Your task to perform on an android device: open wifi settings Image 0: 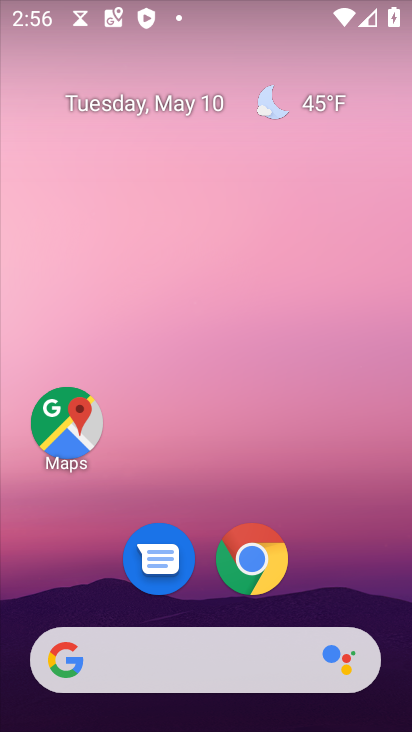
Step 0: drag from (370, 608) to (117, 73)
Your task to perform on an android device: open wifi settings Image 1: 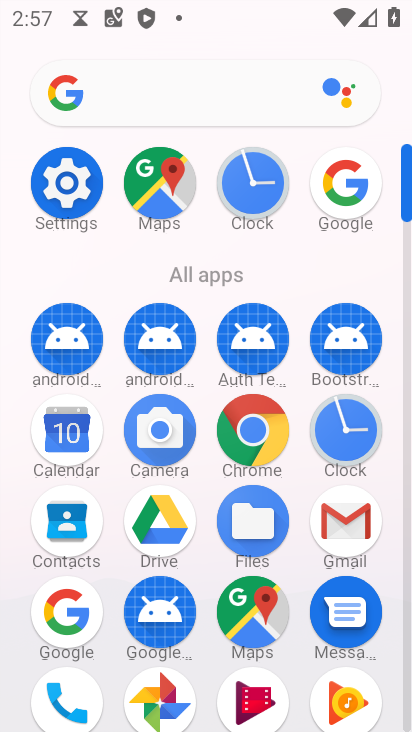
Step 1: click (73, 193)
Your task to perform on an android device: open wifi settings Image 2: 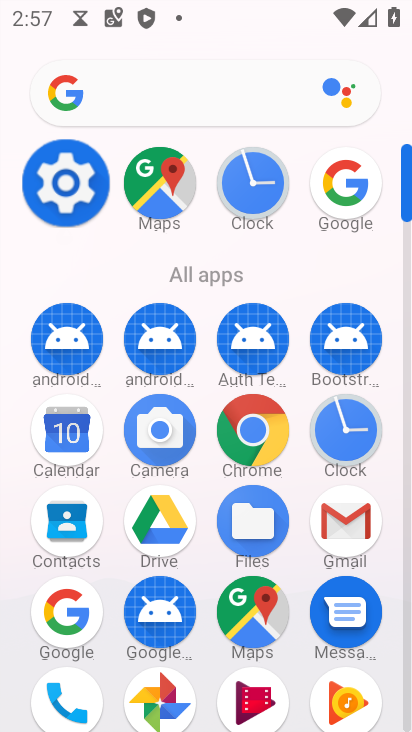
Step 2: click (53, 191)
Your task to perform on an android device: open wifi settings Image 3: 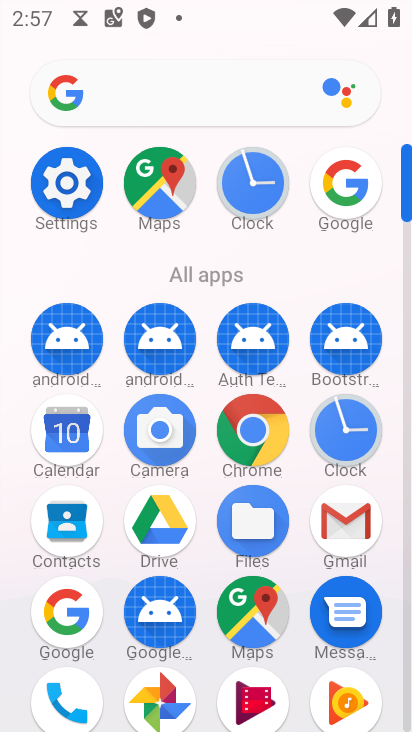
Step 3: click (63, 185)
Your task to perform on an android device: open wifi settings Image 4: 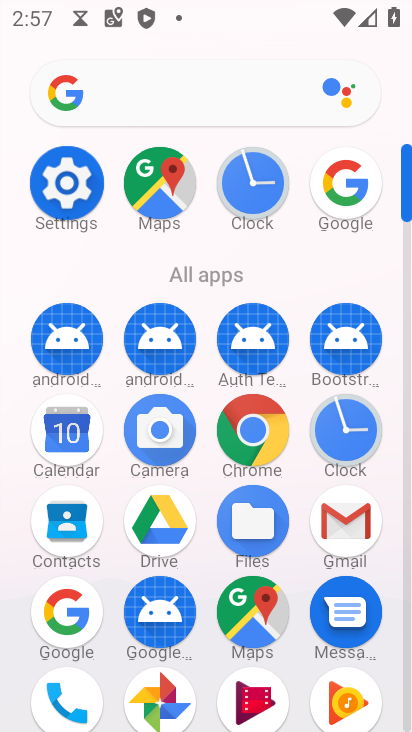
Step 4: click (63, 185)
Your task to perform on an android device: open wifi settings Image 5: 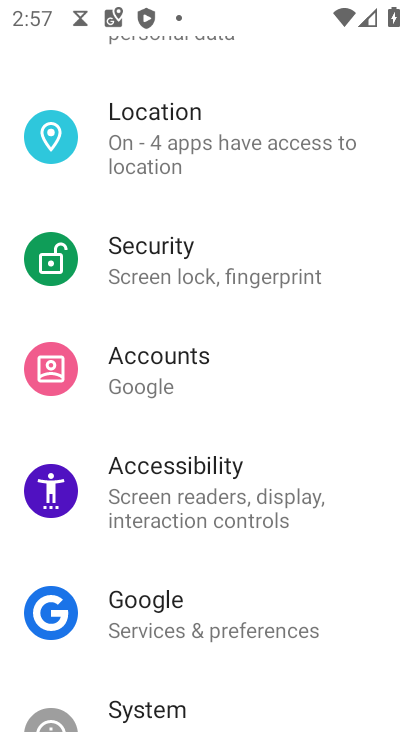
Step 5: click (53, 191)
Your task to perform on an android device: open wifi settings Image 6: 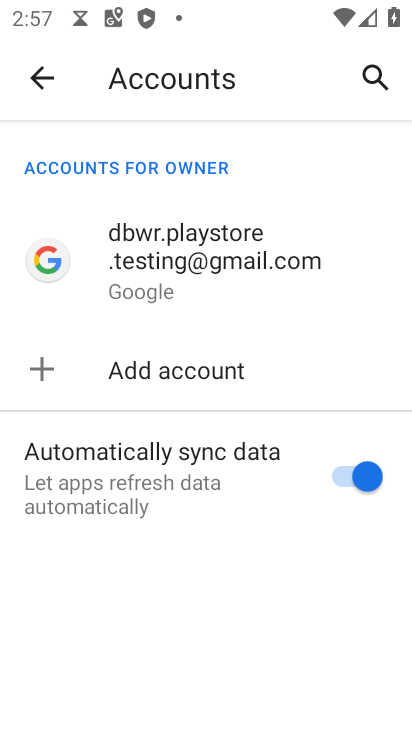
Step 6: click (37, 75)
Your task to perform on an android device: open wifi settings Image 7: 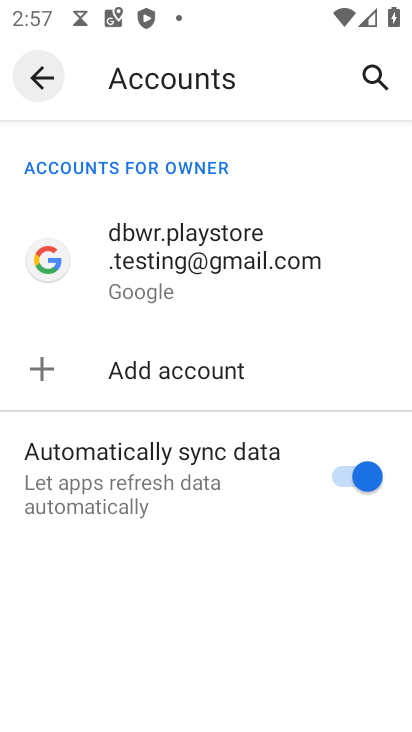
Step 7: click (37, 75)
Your task to perform on an android device: open wifi settings Image 8: 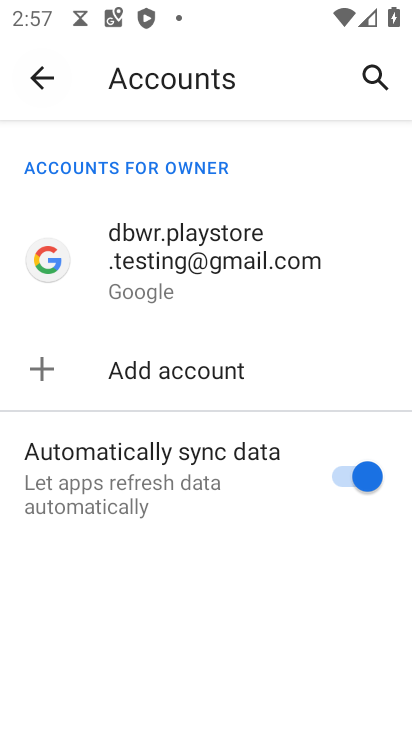
Step 8: click (37, 75)
Your task to perform on an android device: open wifi settings Image 9: 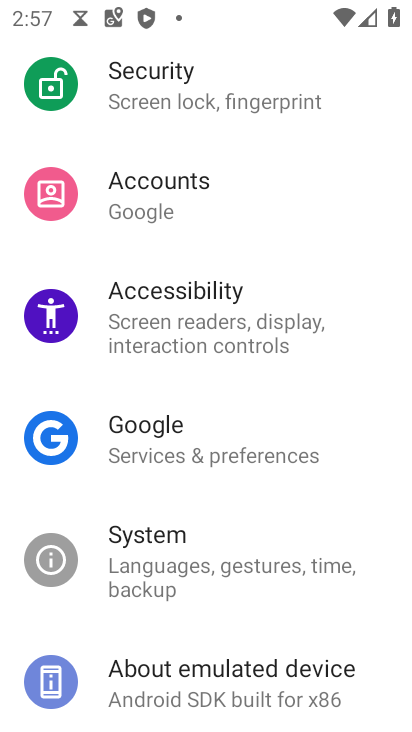
Step 9: click (37, 75)
Your task to perform on an android device: open wifi settings Image 10: 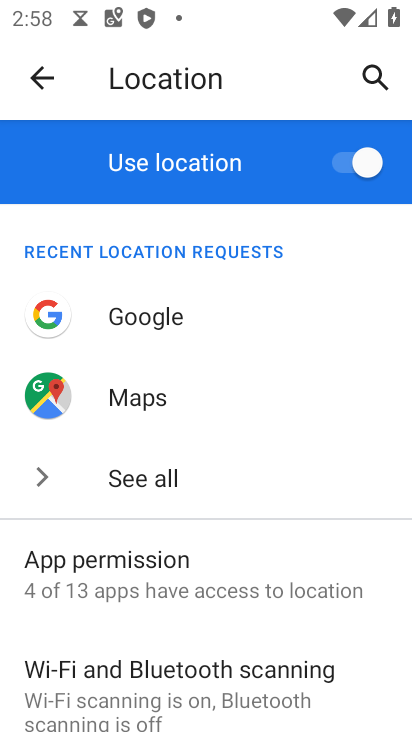
Step 10: click (37, 71)
Your task to perform on an android device: open wifi settings Image 11: 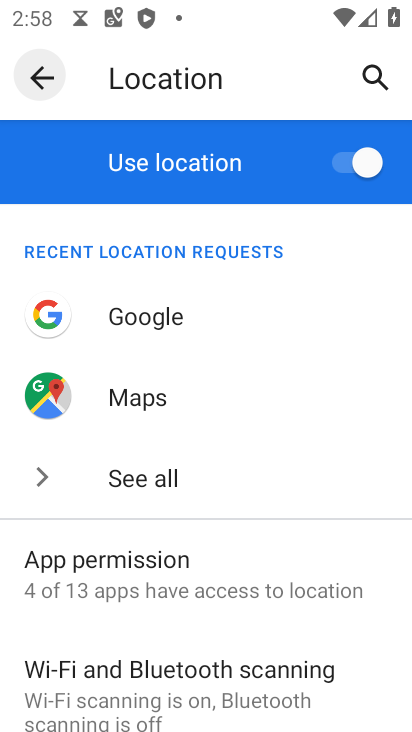
Step 11: click (37, 71)
Your task to perform on an android device: open wifi settings Image 12: 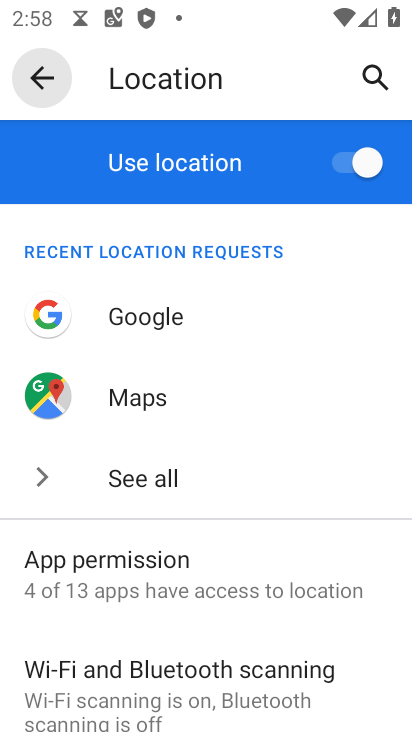
Step 12: click (37, 71)
Your task to perform on an android device: open wifi settings Image 13: 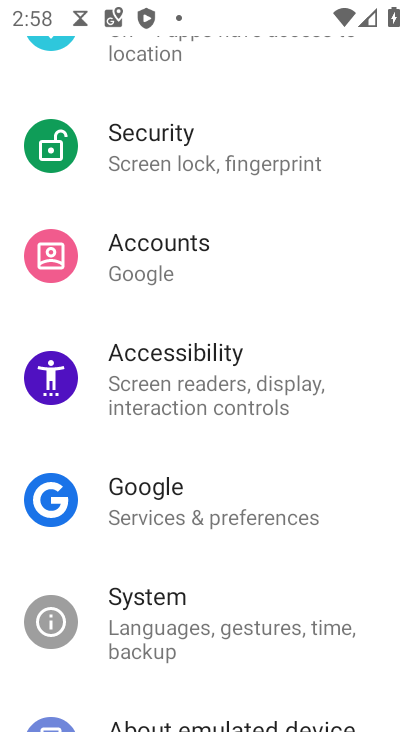
Step 13: click (39, 71)
Your task to perform on an android device: open wifi settings Image 14: 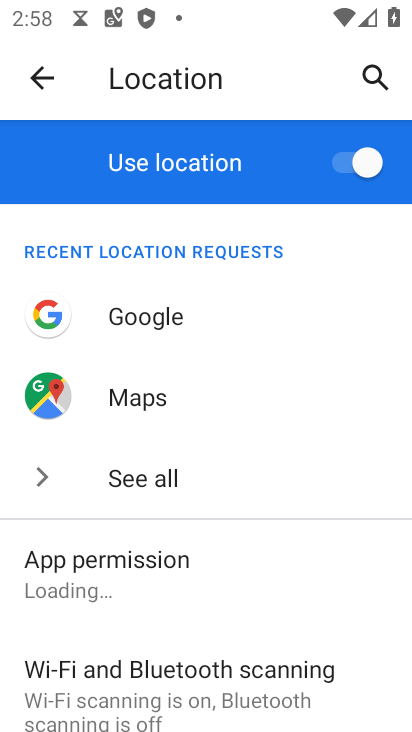
Step 14: click (42, 72)
Your task to perform on an android device: open wifi settings Image 15: 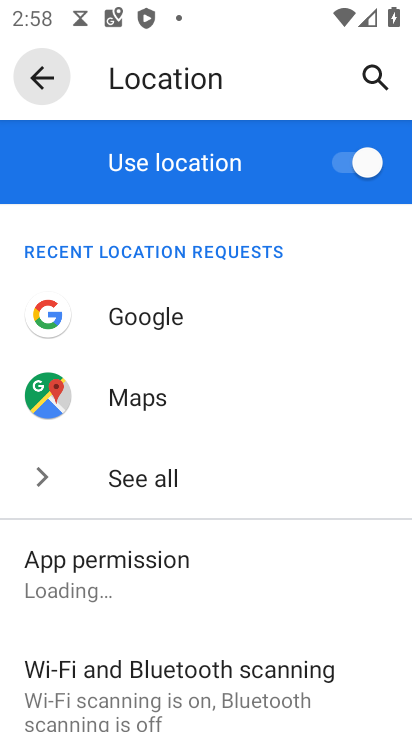
Step 15: click (41, 74)
Your task to perform on an android device: open wifi settings Image 16: 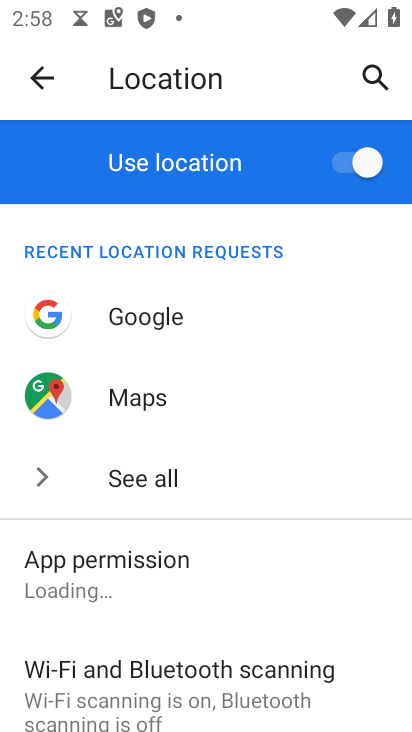
Step 16: click (41, 74)
Your task to perform on an android device: open wifi settings Image 17: 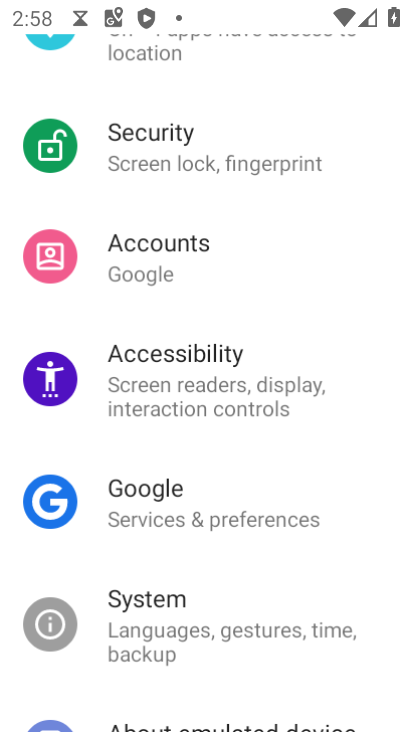
Step 17: click (42, 75)
Your task to perform on an android device: open wifi settings Image 18: 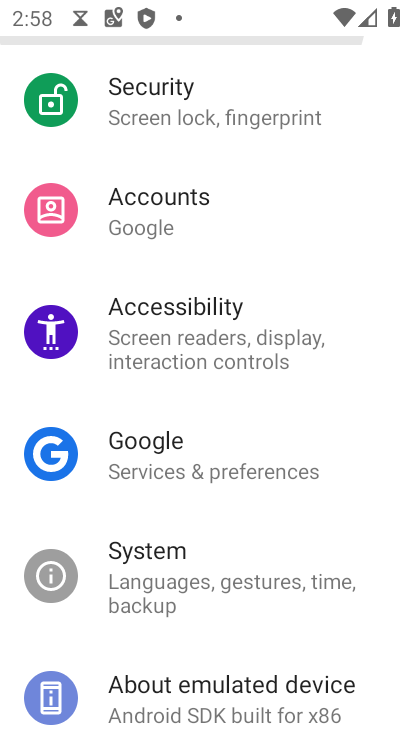
Step 18: click (43, 74)
Your task to perform on an android device: open wifi settings Image 19: 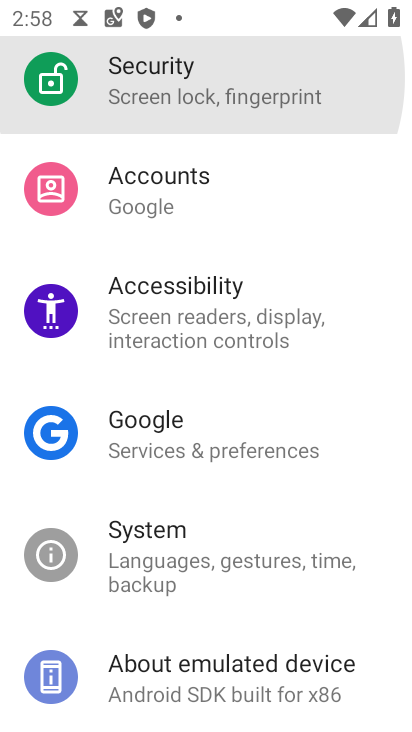
Step 19: click (44, 74)
Your task to perform on an android device: open wifi settings Image 20: 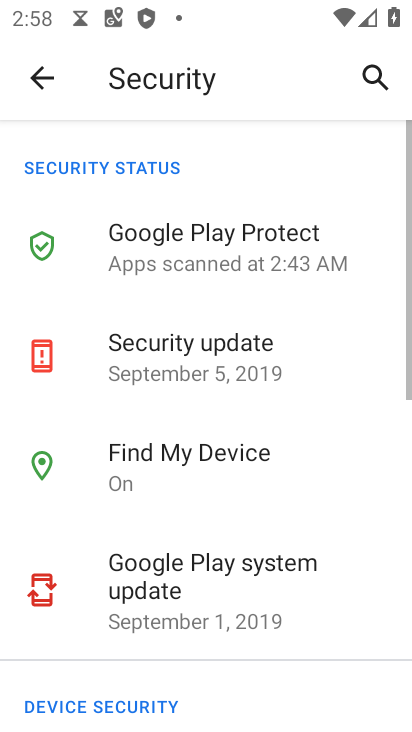
Step 20: click (43, 76)
Your task to perform on an android device: open wifi settings Image 21: 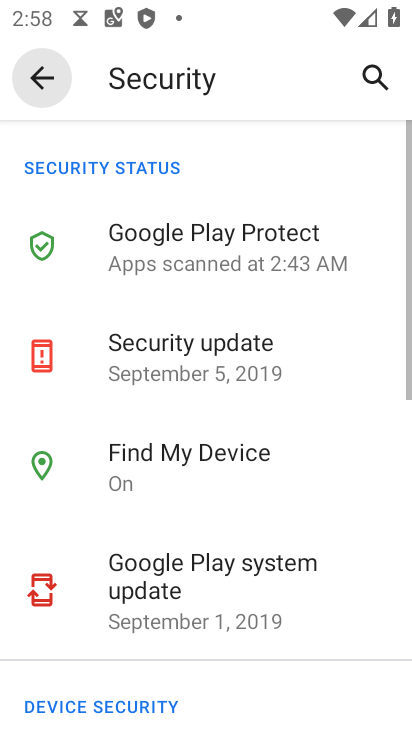
Step 21: click (39, 78)
Your task to perform on an android device: open wifi settings Image 22: 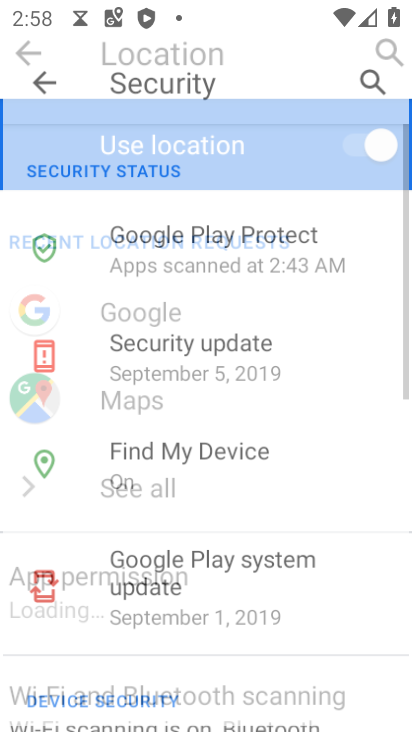
Step 22: click (38, 77)
Your task to perform on an android device: open wifi settings Image 23: 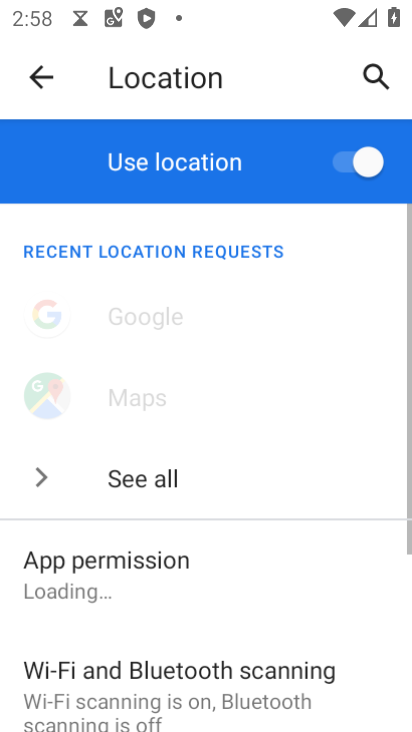
Step 23: click (38, 78)
Your task to perform on an android device: open wifi settings Image 24: 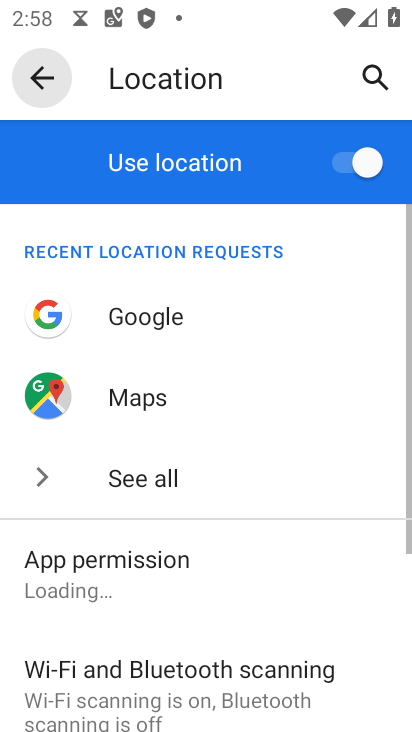
Step 24: click (38, 79)
Your task to perform on an android device: open wifi settings Image 25: 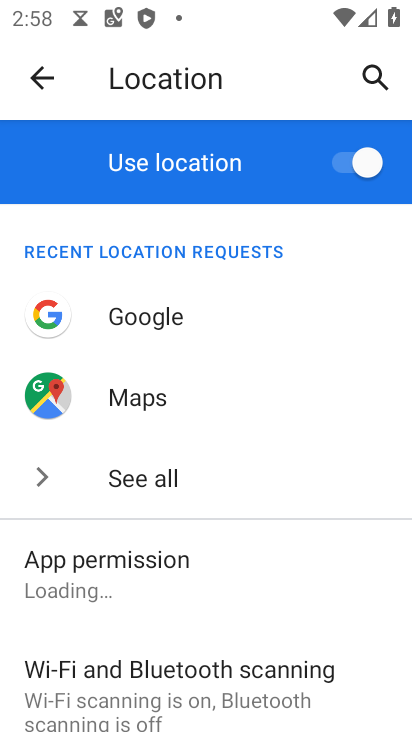
Step 25: click (39, 75)
Your task to perform on an android device: open wifi settings Image 26: 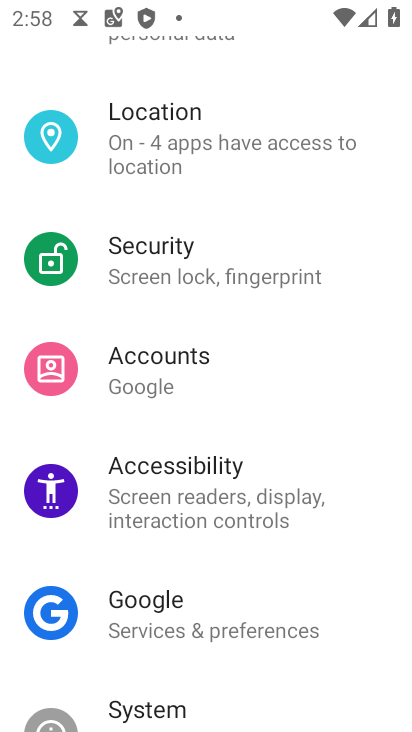
Step 26: drag from (159, 223) to (219, 471)
Your task to perform on an android device: open wifi settings Image 27: 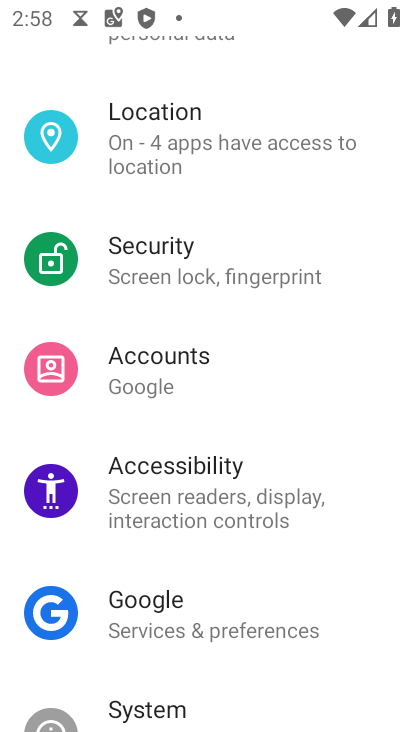
Step 27: drag from (190, 242) to (223, 580)
Your task to perform on an android device: open wifi settings Image 28: 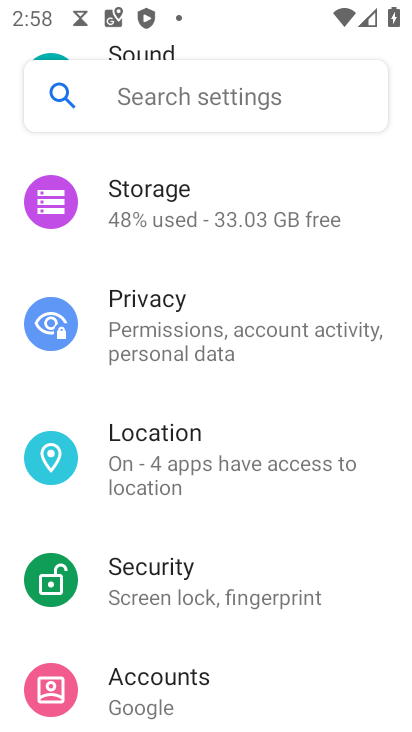
Step 28: drag from (146, 179) to (237, 507)
Your task to perform on an android device: open wifi settings Image 29: 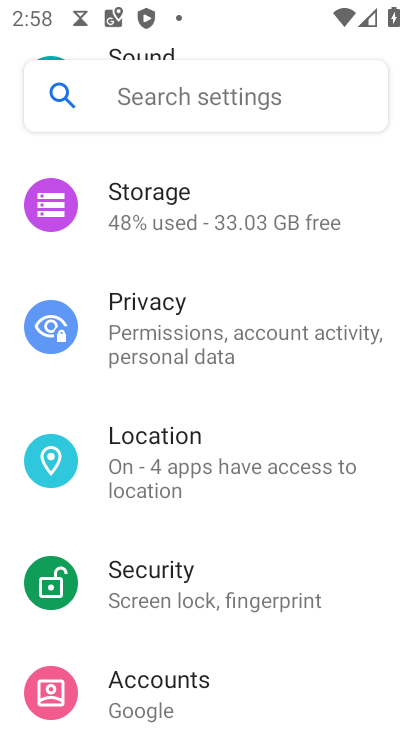
Step 29: drag from (218, 258) to (244, 563)
Your task to perform on an android device: open wifi settings Image 30: 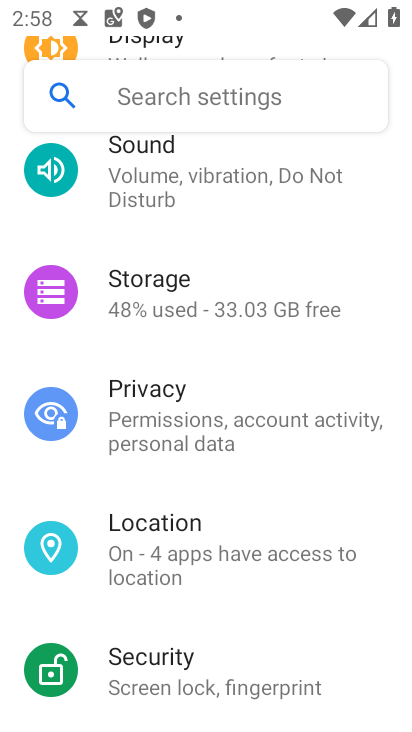
Step 30: drag from (174, 310) to (210, 562)
Your task to perform on an android device: open wifi settings Image 31: 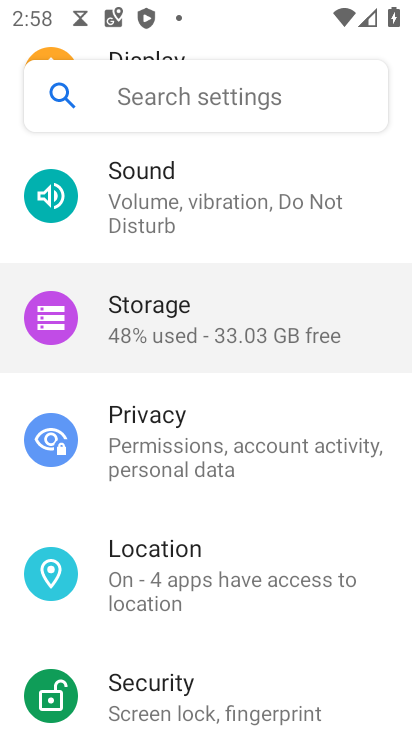
Step 31: drag from (168, 253) to (216, 619)
Your task to perform on an android device: open wifi settings Image 32: 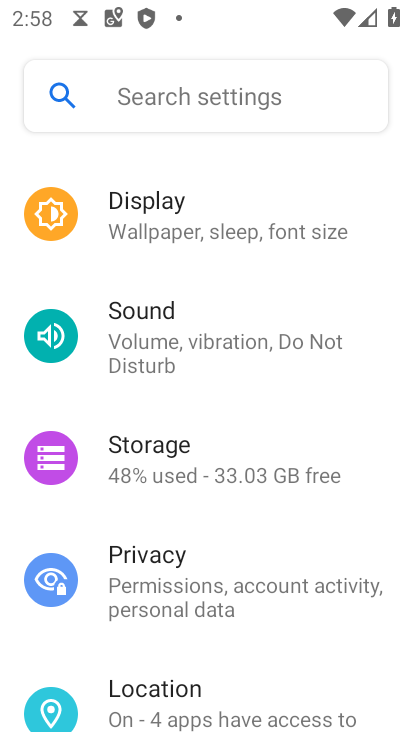
Step 32: drag from (206, 237) to (266, 718)
Your task to perform on an android device: open wifi settings Image 33: 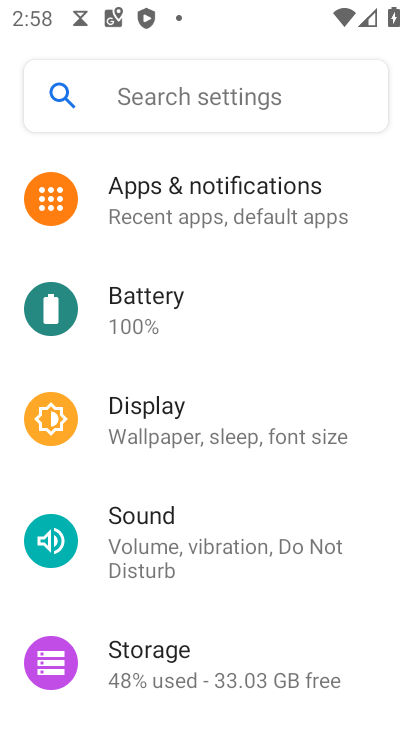
Step 33: click (200, 191)
Your task to perform on an android device: open wifi settings Image 34: 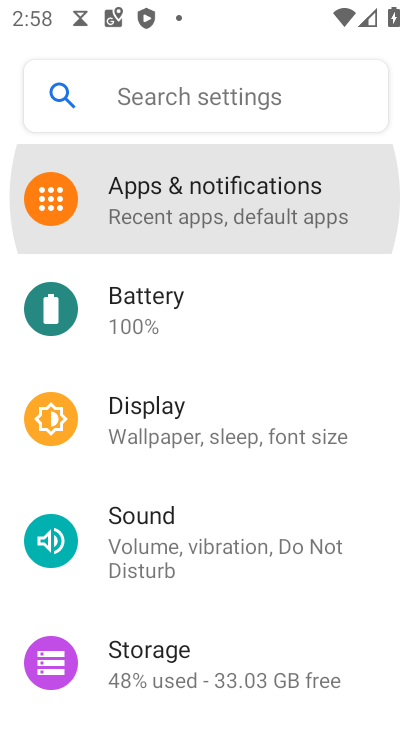
Step 34: click (200, 191)
Your task to perform on an android device: open wifi settings Image 35: 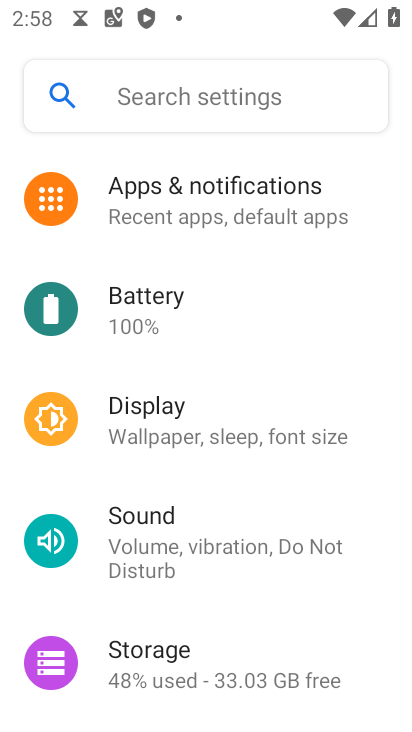
Step 35: click (202, 210)
Your task to perform on an android device: open wifi settings Image 36: 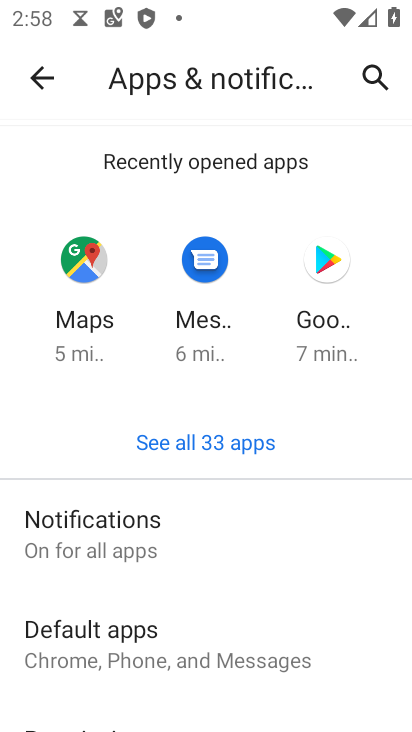
Step 36: click (42, 78)
Your task to perform on an android device: open wifi settings Image 37: 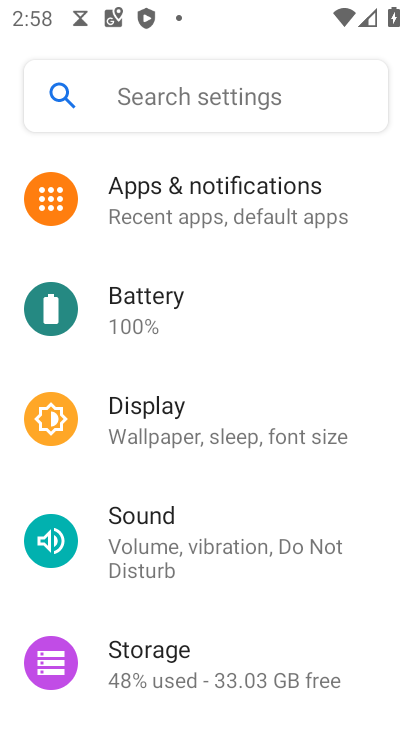
Step 37: drag from (195, 242) to (257, 619)
Your task to perform on an android device: open wifi settings Image 38: 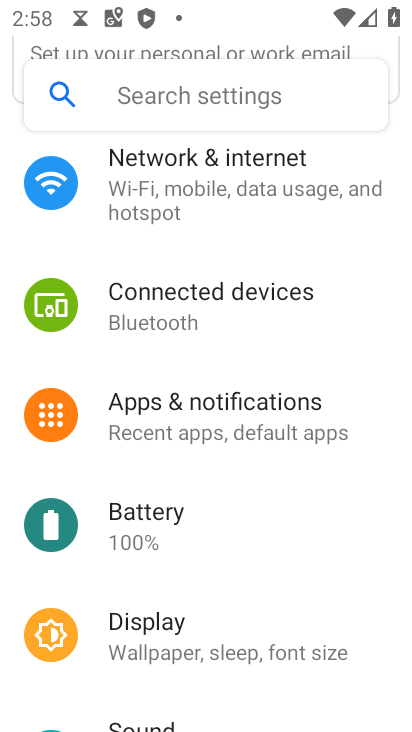
Step 38: drag from (205, 220) to (261, 669)
Your task to perform on an android device: open wifi settings Image 39: 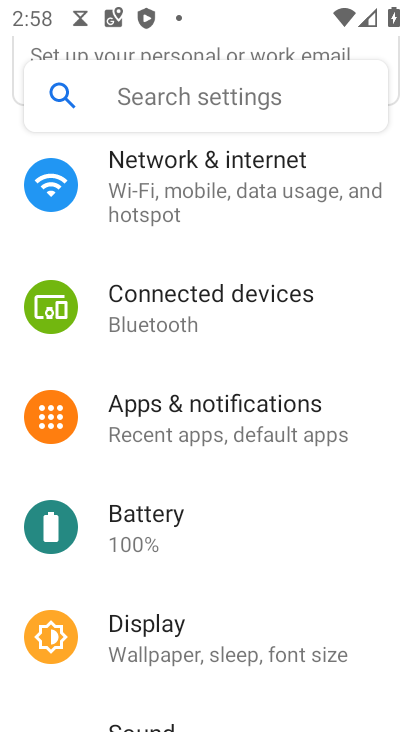
Step 39: click (187, 191)
Your task to perform on an android device: open wifi settings Image 40: 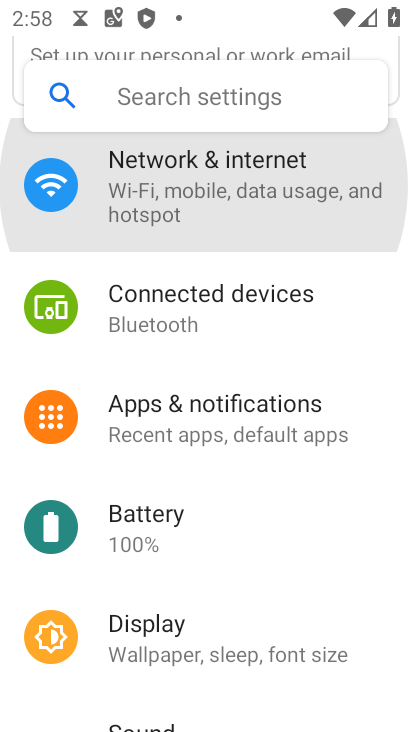
Step 40: click (187, 191)
Your task to perform on an android device: open wifi settings Image 41: 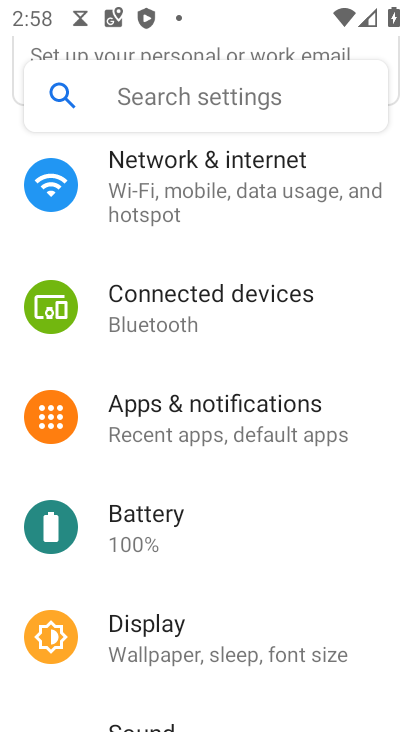
Step 41: click (187, 191)
Your task to perform on an android device: open wifi settings Image 42: 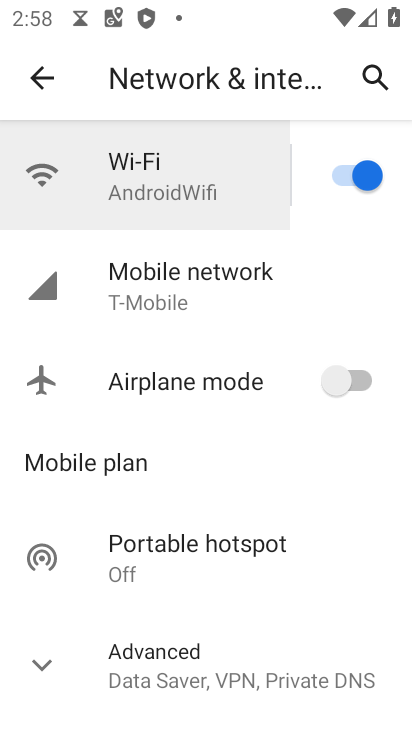
Step 42: click (187, 191)
Your task to perform on an android device: open wifi settings Image 43: 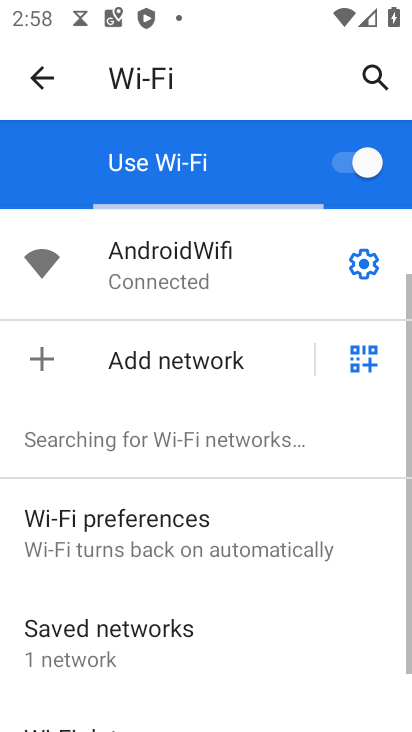
Step 43: click (39, 73)
Your task to perform on an android device: open wifi settings Image 44: 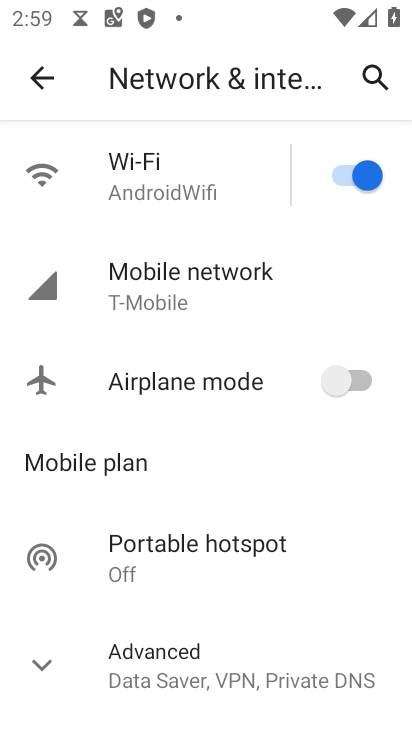
Step 44: task complete